Your task to perform on an android device: open app "TextNow: Call + Text Unlimited" (install if not already installed) Image 0: 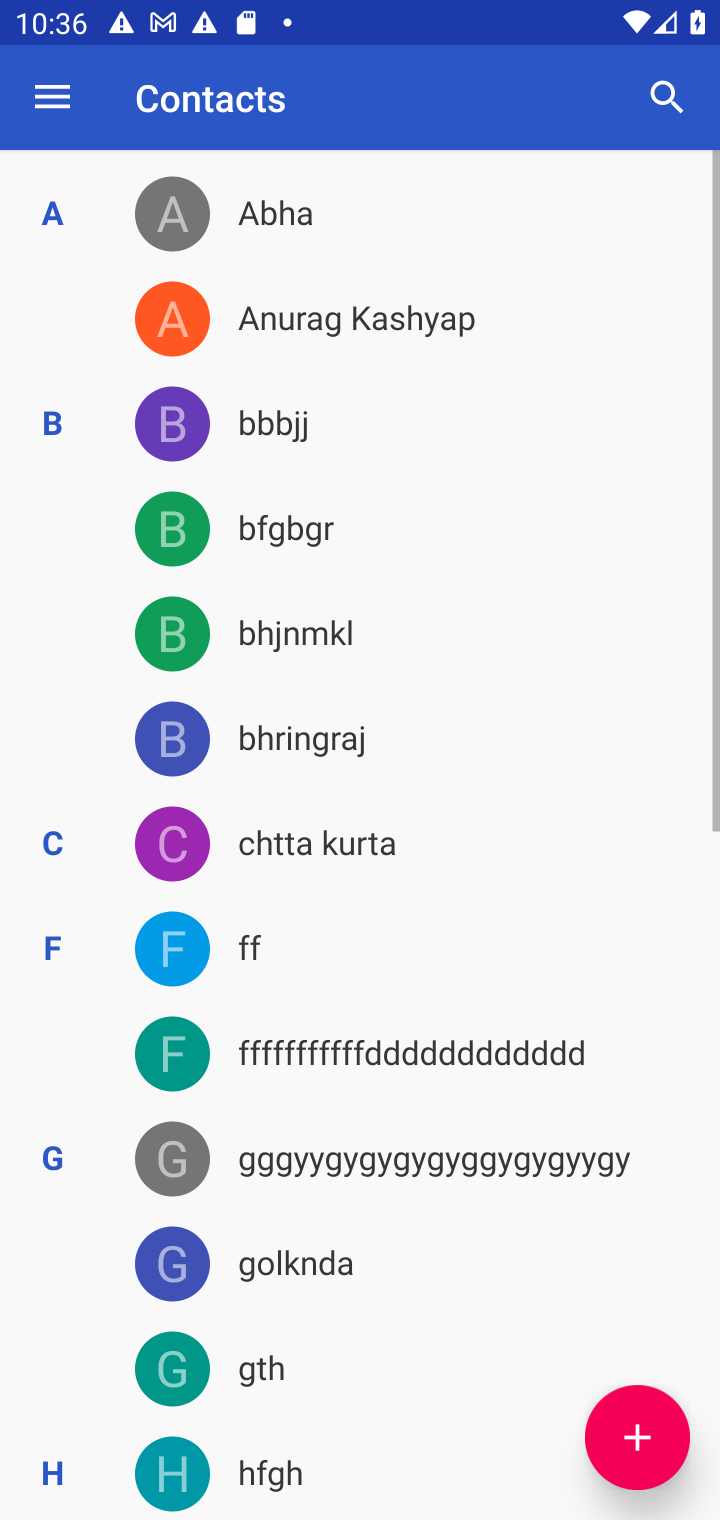
Step 0: press home button
Your task to perform on an android device: open app "TextNow: Call + Text Unlimited" (install if not already installed) Image 1: 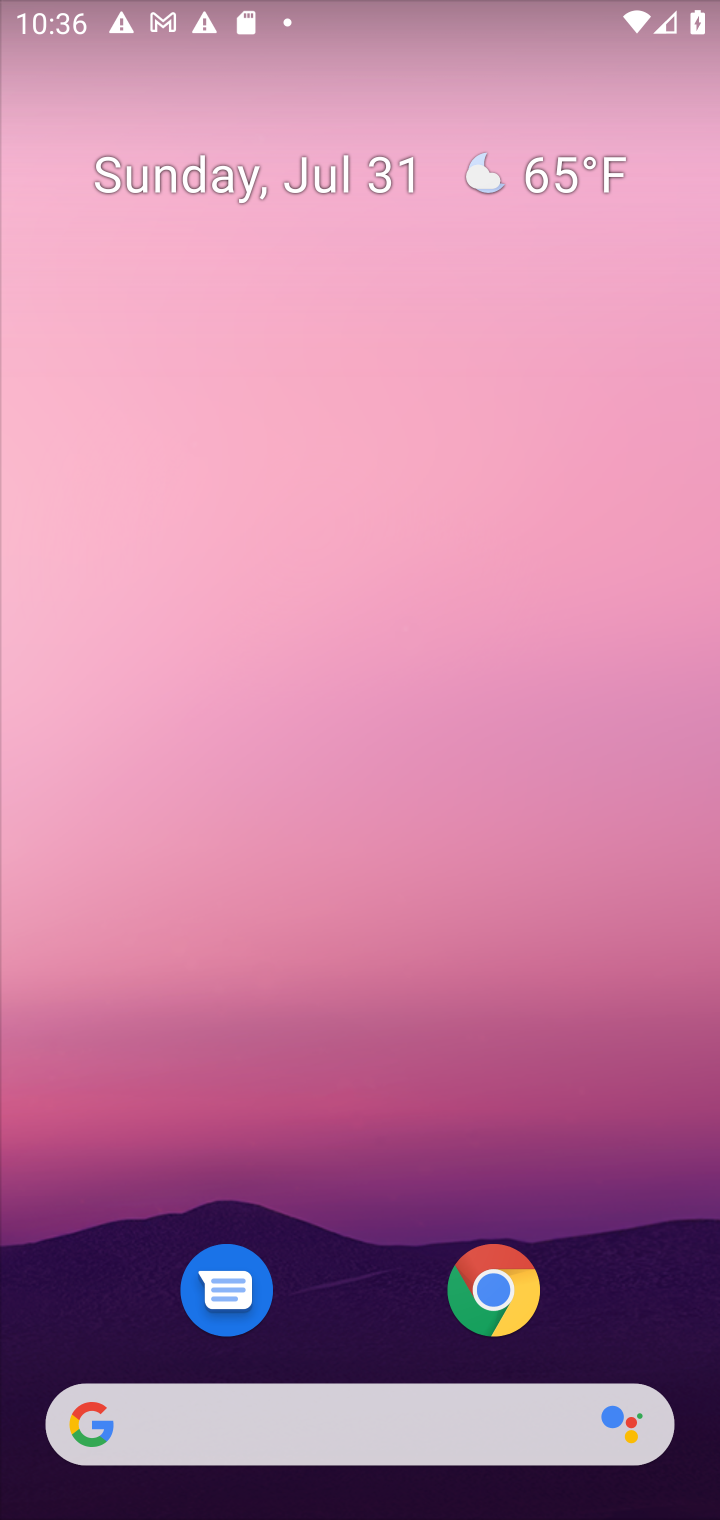
Step 1: drag from (617, 1137) to (503, 113)
Your task to perform on an android device: open app "TextNow: Call + Text Unlimited" (install if not already installed) Image 2: 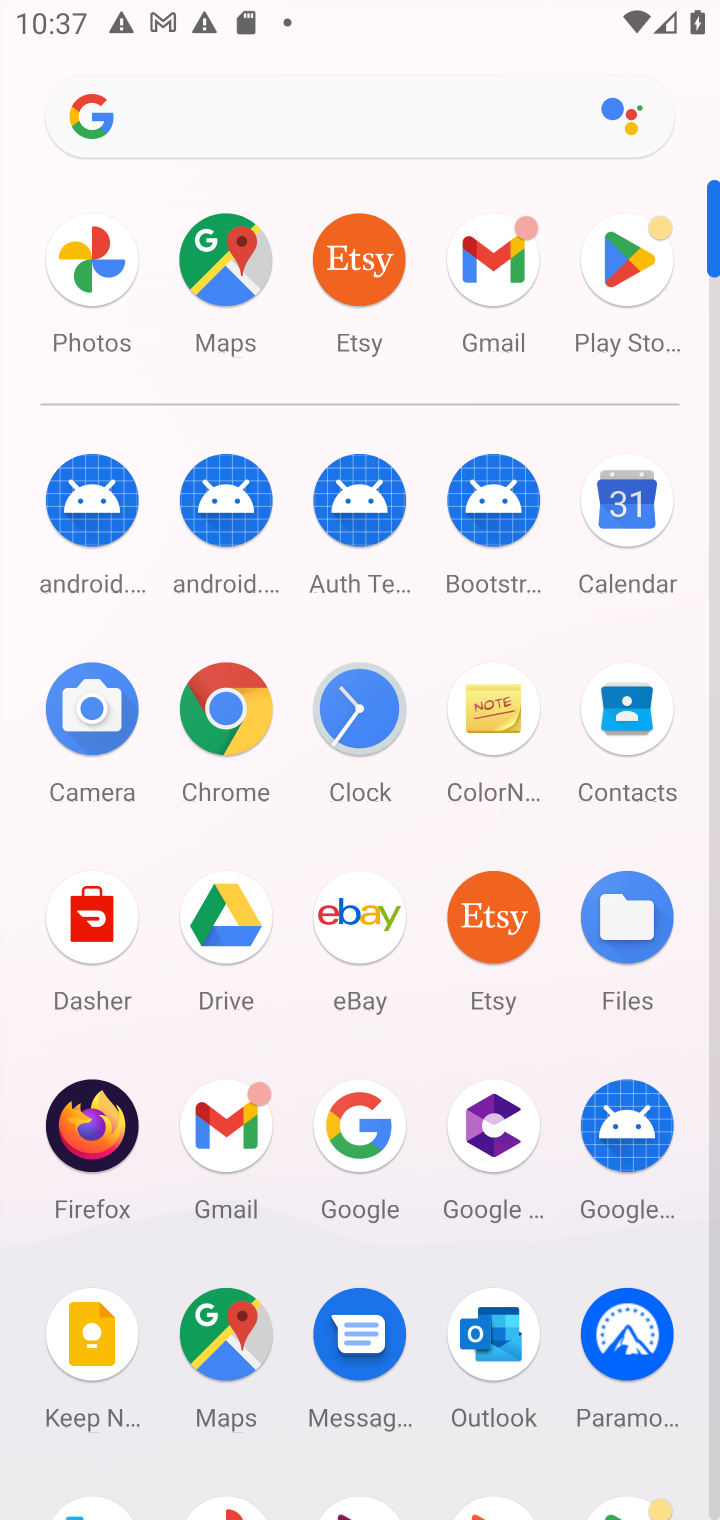
Step 2: click (616, 247)
Your task to perform on an android device: open app "TextNow: Call + Text Unlimited" (install if not already installed) Image 3: 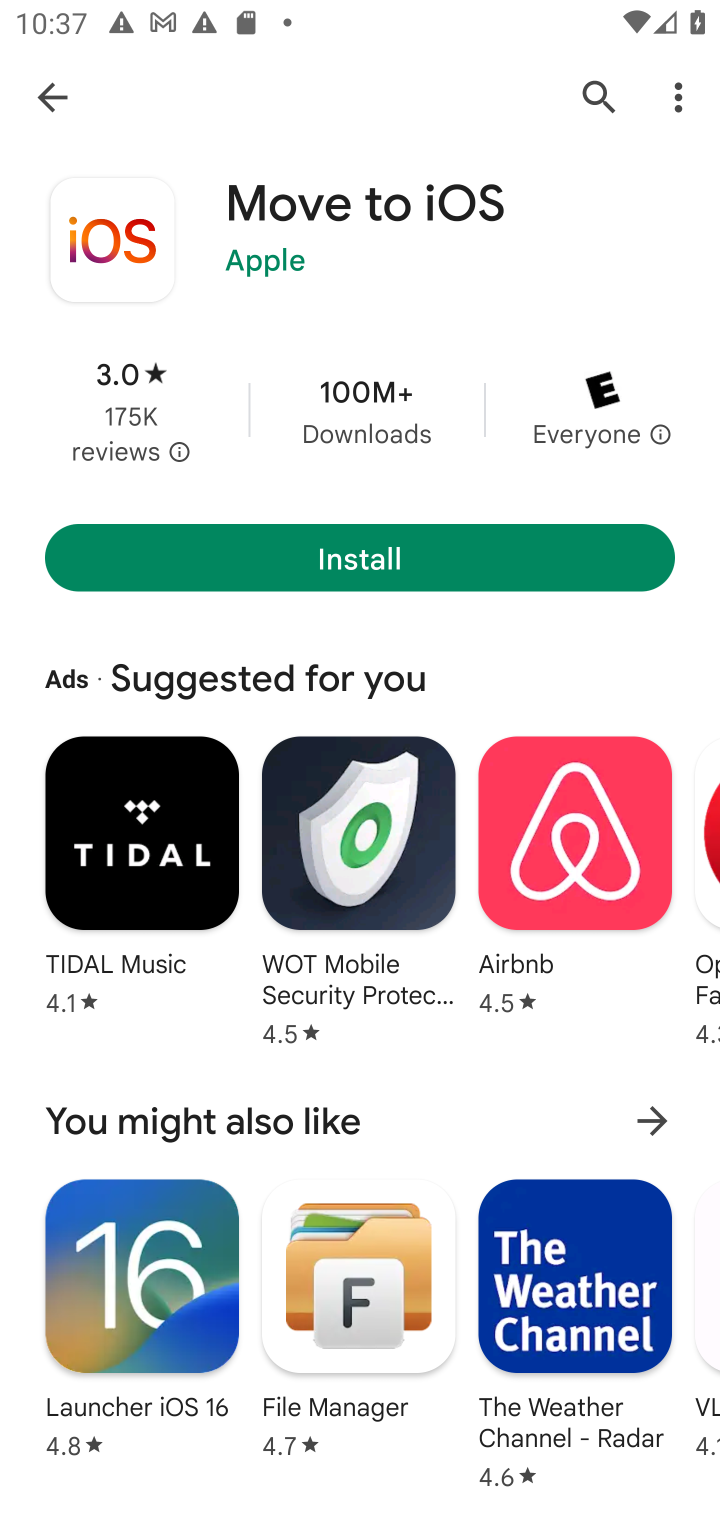
Step 3: click (601, 79)
Your task to perform on an android device: open app "TextNow: Call + Text Unlimited" (install if not already installed) Image 4: 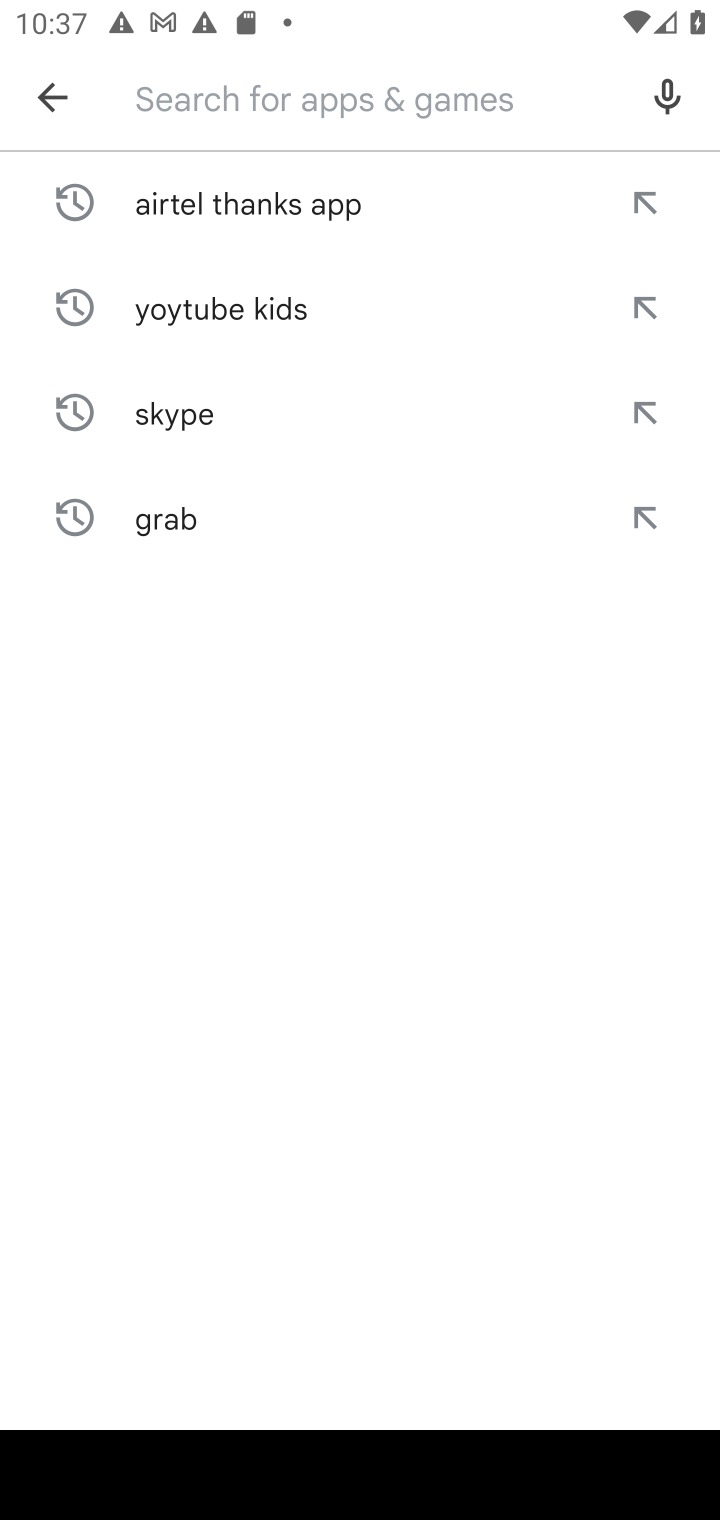
Step 4: type "textnow call"
Your task to perform on an android device: open app "TextNow: Call + Text Unlimited" (install if not already installed) Image 5: 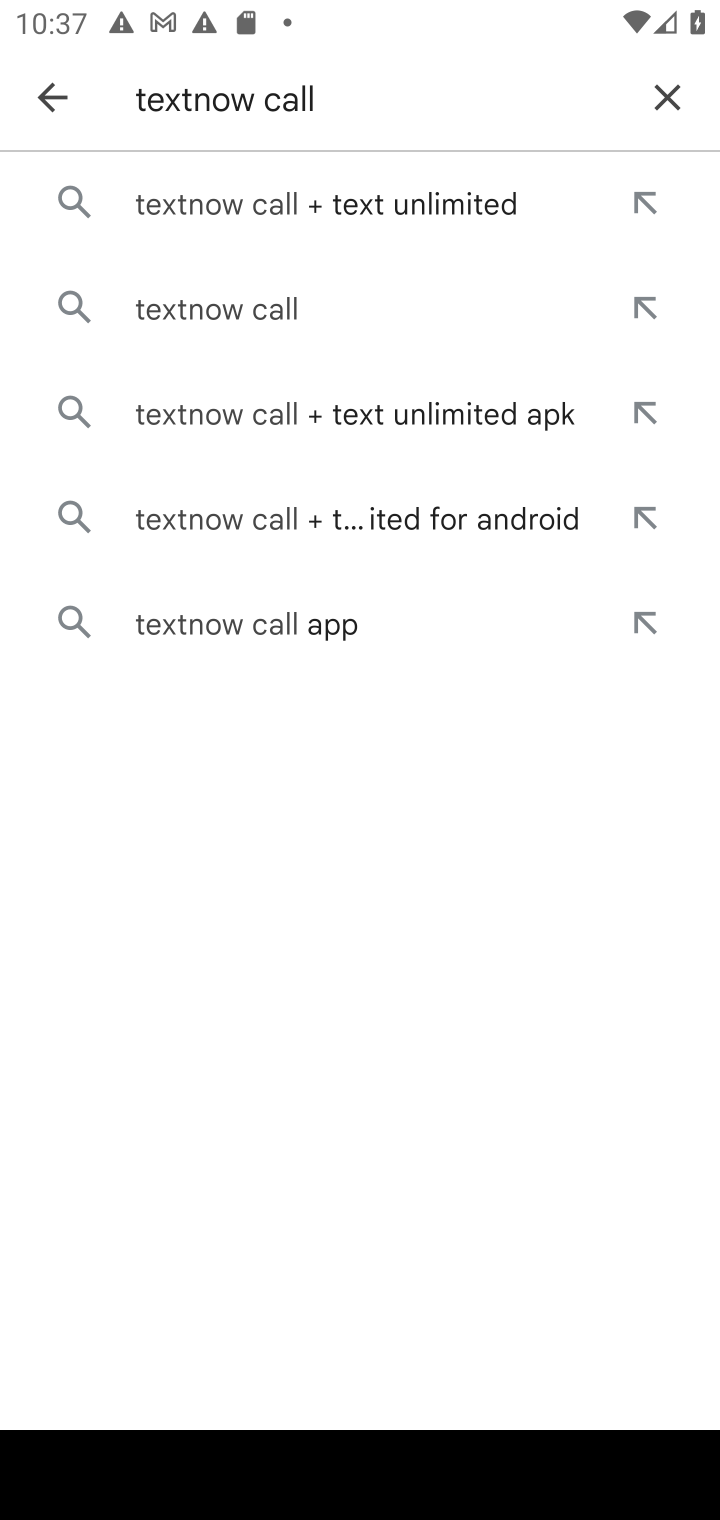
Step 5: click (423, 190)
Your task to perform on an android device: open app "TextNow: Call + Text Unlimited" (install if not already installed) Image 6: 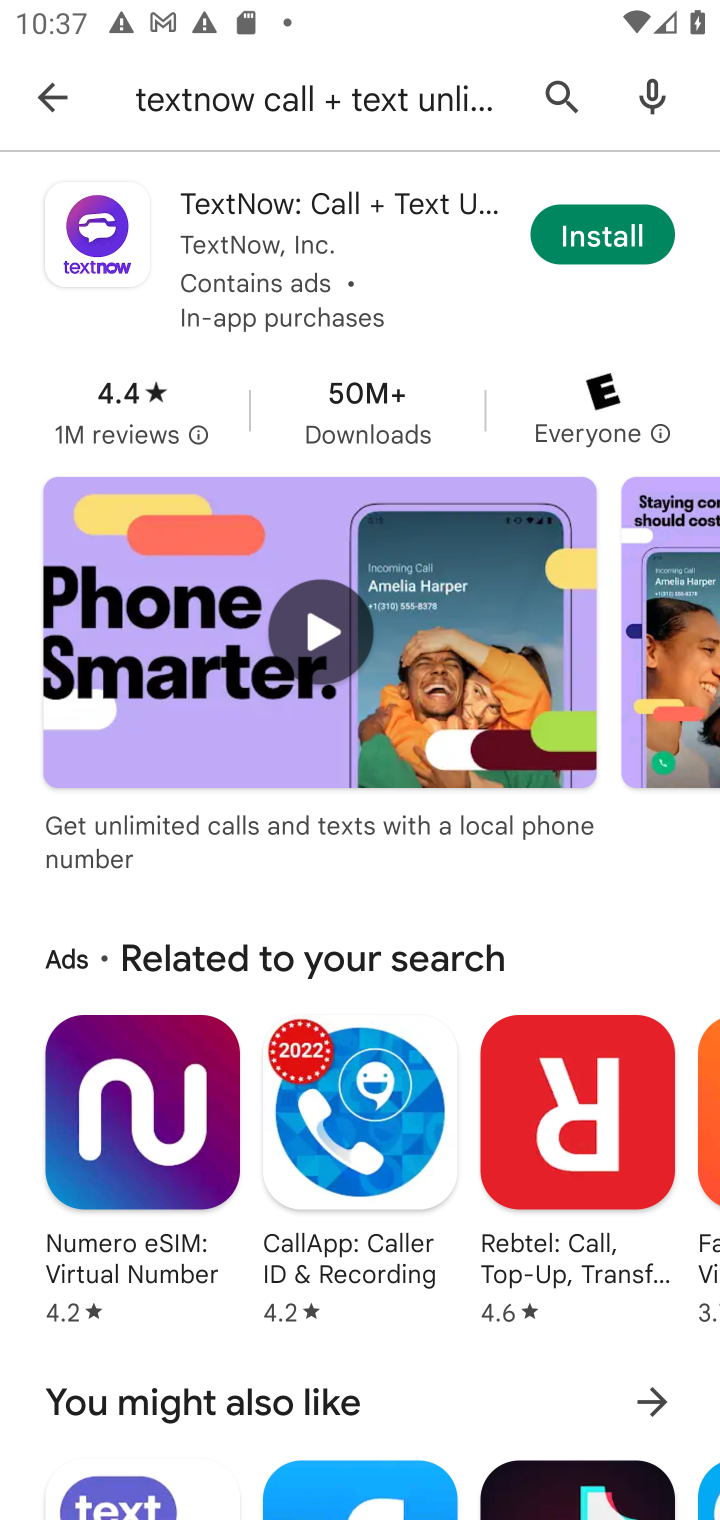
Step 6: click (592, 215)
Your task to perform on an android device: open app "TextNow: Call + Text Unlimited" (install if not already installed) Image 7: 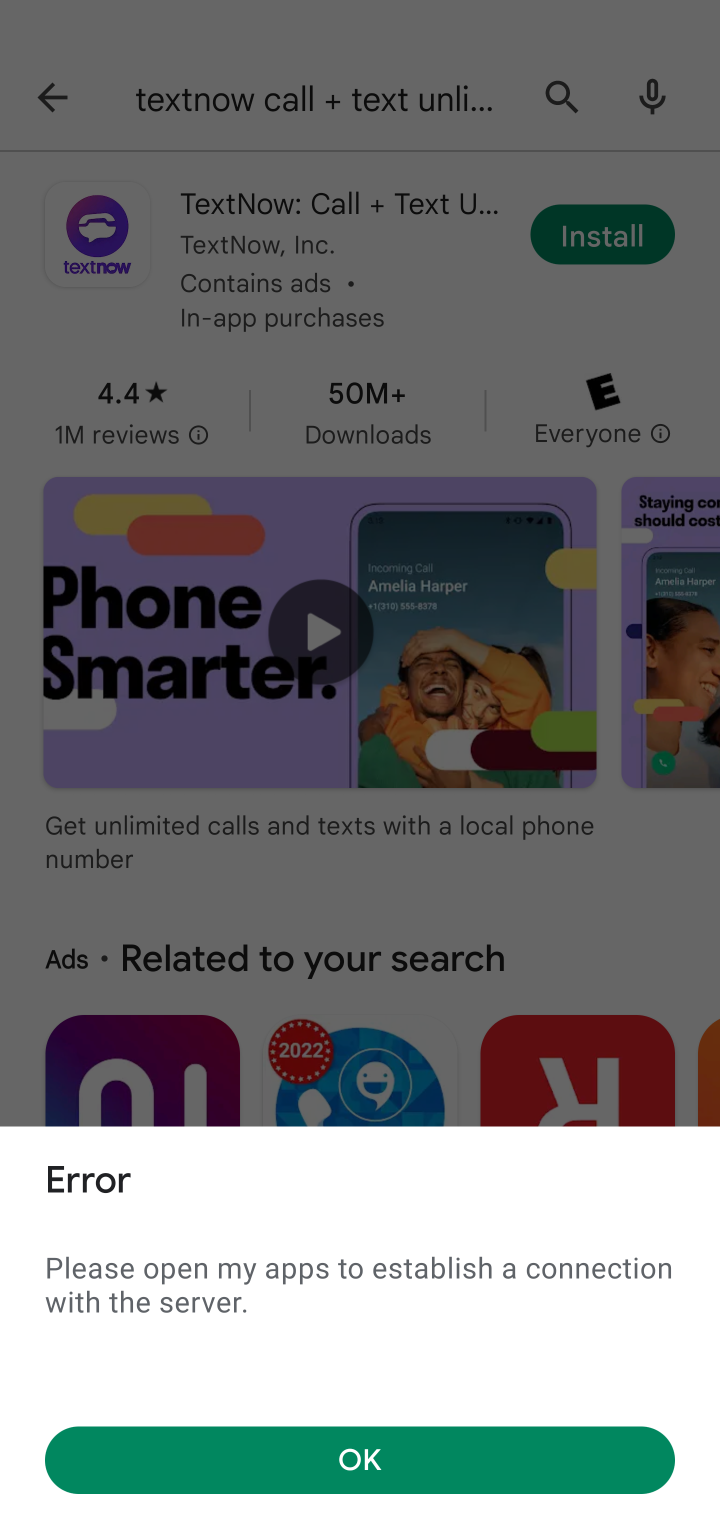
Step 7: task complete